Your task to perform on an android device: What's the weather going to be tomorrow? Image 0: 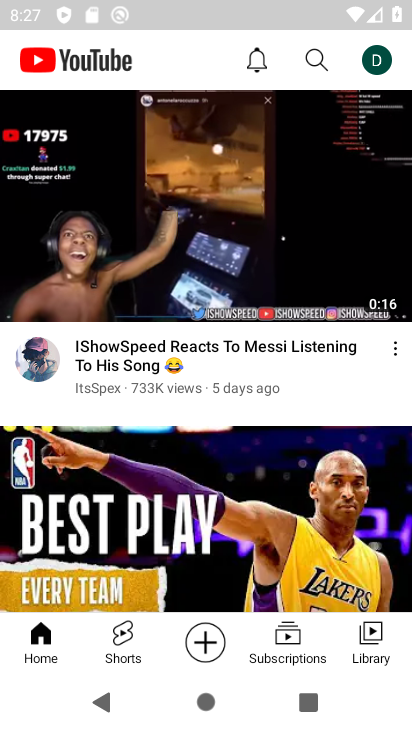
Step 0: press home button
Your task to perform on an android device: What's the weather going to be tomorrow? Image 1: 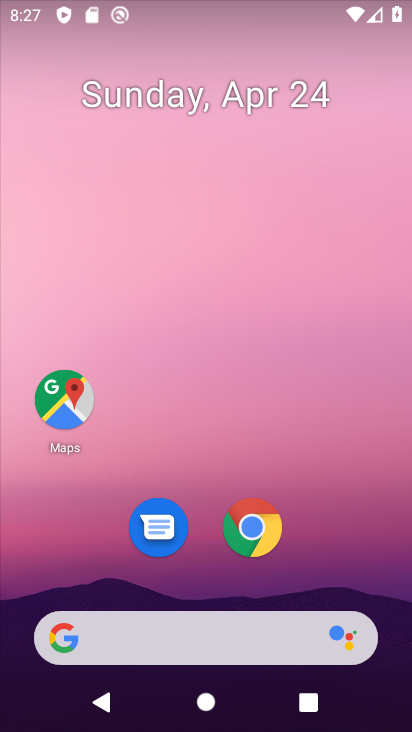
Step 1: drag from (46, 210) to (364, 182)
Your task to perform on an android device: What's the weather going to be tomorrow? Image 2: 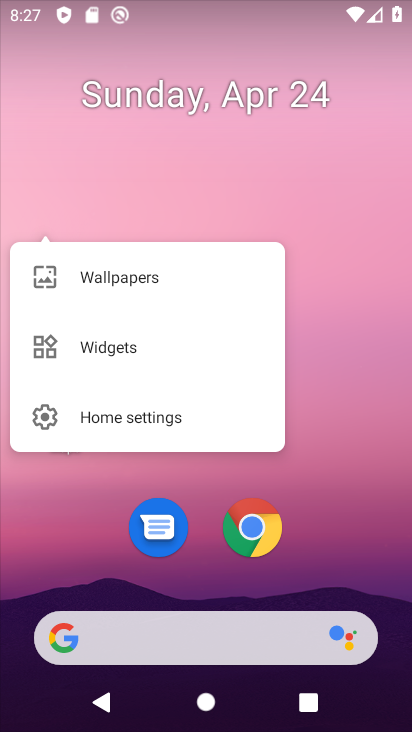
Step 2: drag from (37, 191) to (401, 213)
Your task to perform on an android device: What's the weather going to be tomorrow? Image 3: 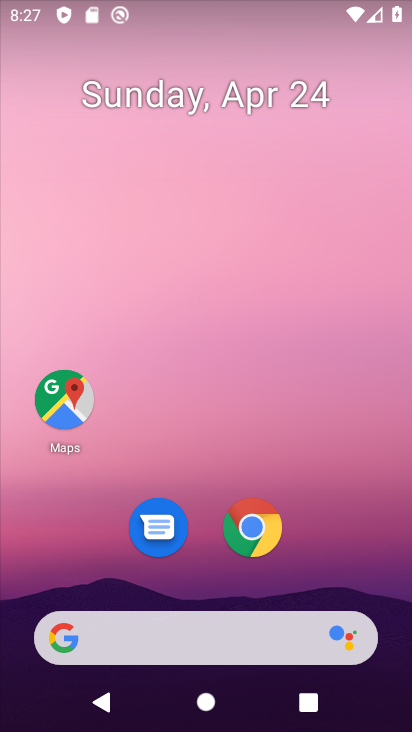
Step 3: drag from (5, 282) to (408, 245)
Your task to perform on an android device: What's the weather going to be tomorrow? Image 4: 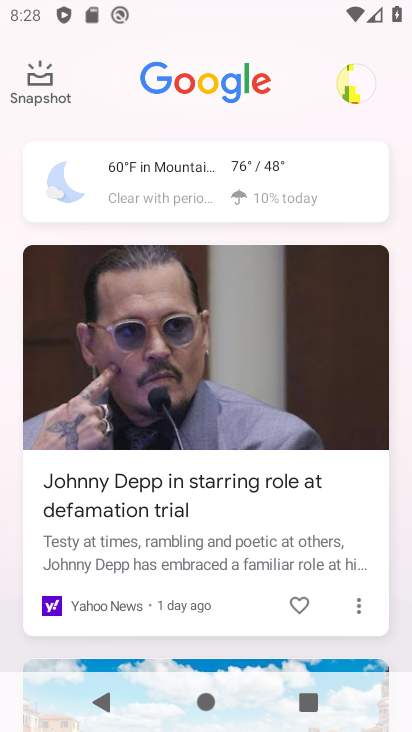
Step 4: click (257, 178)
Your task to perform on an android device: What's the weather going to be tomorrow? Image 5: 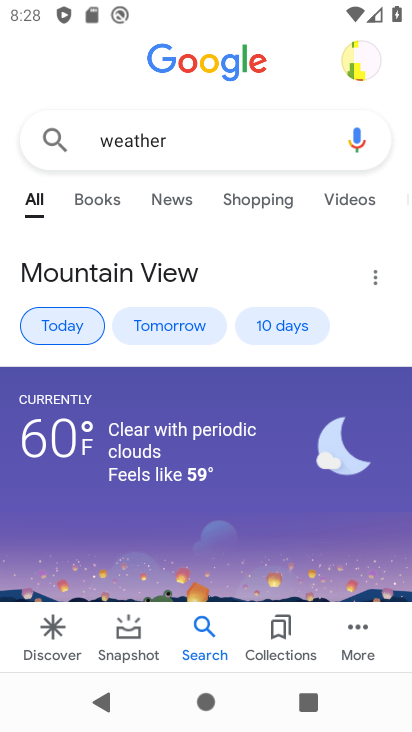
Step 5: click (179, 326)
Your task to perform on an android device: What's the weather going to be tomorrow? Image 6: 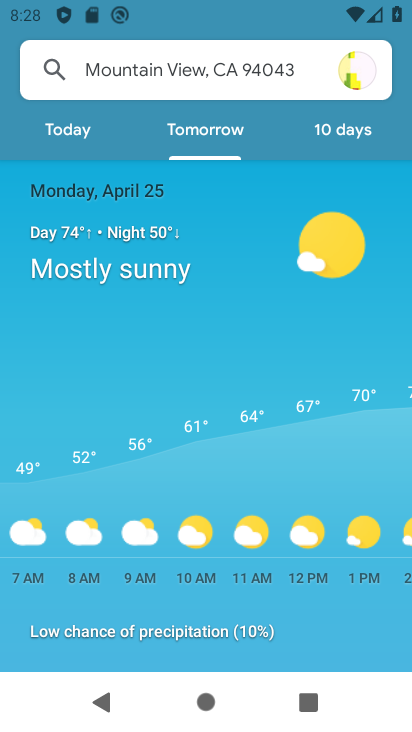
Step 6: task complete